Your task to perform on an android device: Open Maps and search for coffee Image 0: 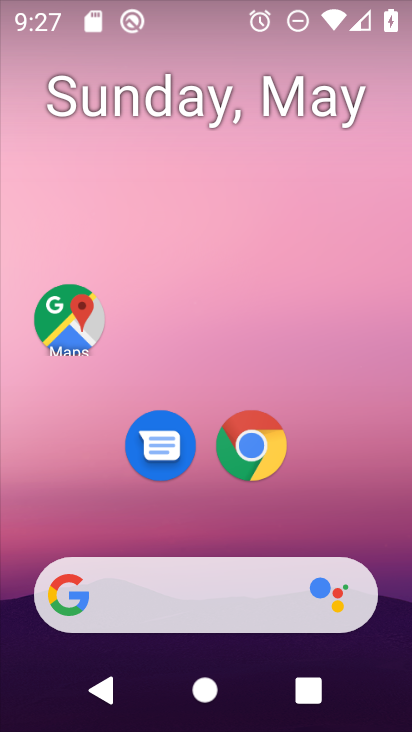
Step 0: drag from (257, 689) to (314, 320)
Your task to perform on an android device: Open Maps and search for coffee Image 1: 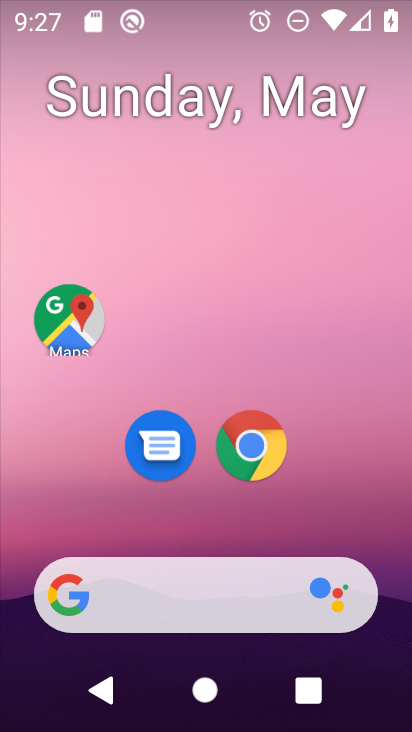
Step 1: drag from (202, 499) to (256, 162)
Your task to perform on an android device: Open Maps and search for coffee Image 2: 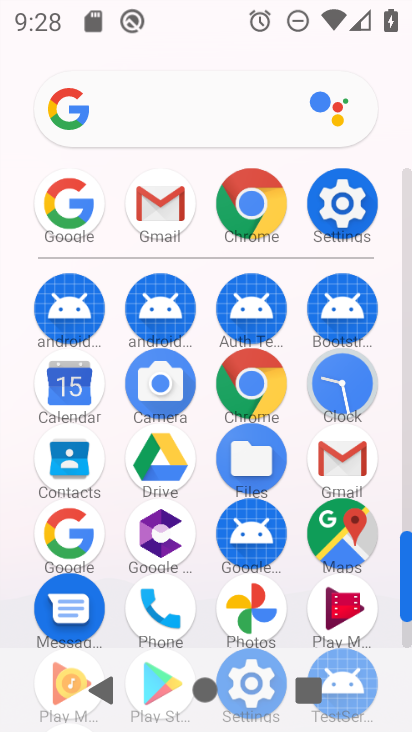
Step 2: click (351, 531)
Your task to perform on an android device: Open Maps and search for coffee Image 3: 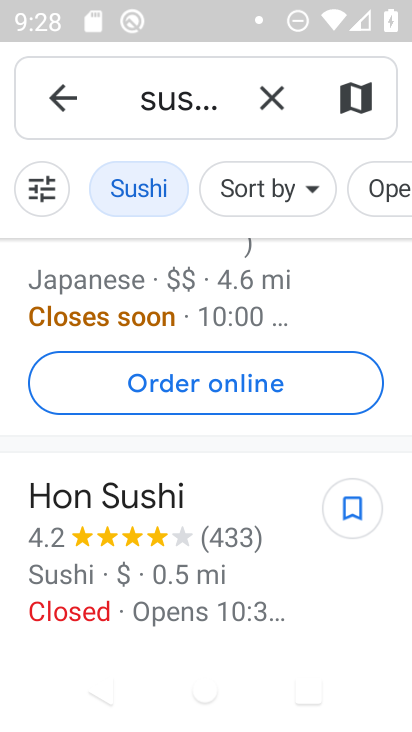
Step 3: click (275, 107)
Your task to perform on an android device: Open Maps and search for coffee Image 4: 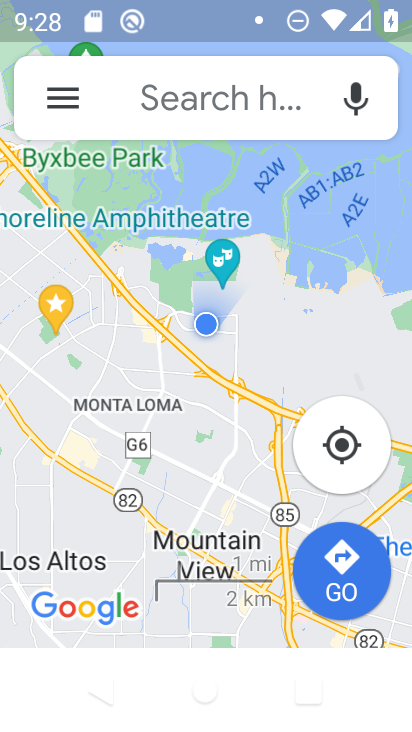
Step 4: click (238, 106)
Your task to perform on an android device: Open Maps and search for coffee Image 5: 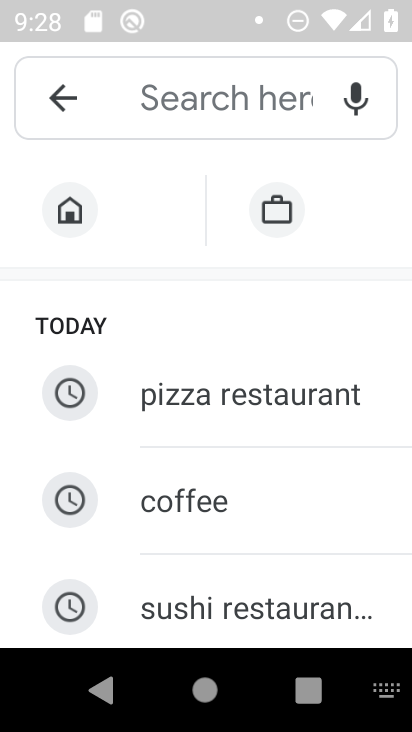
Step 5: click (206, 511)
Your task to perform on an android device: Open Maps and search for coffee Image 6: 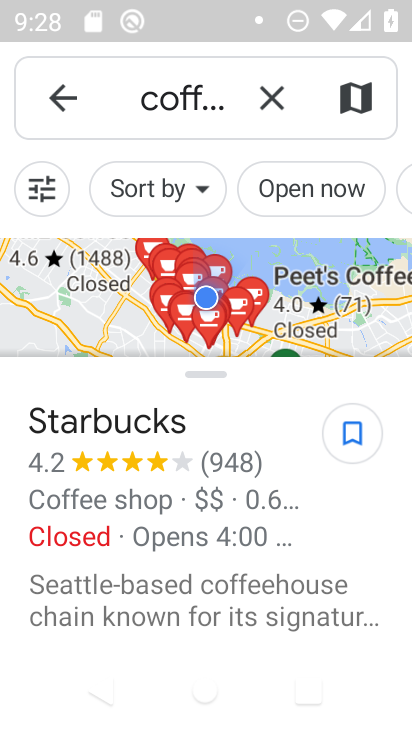
Step 6: task complete